Your task to perform on an android device: Toggle the flashlight Image 0: 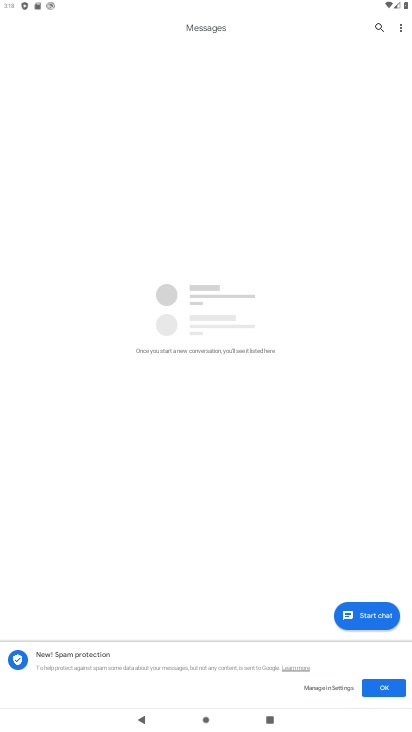
Step 0: press home button
Your task to perform on an android device: Toggle the flashlight Image 1: 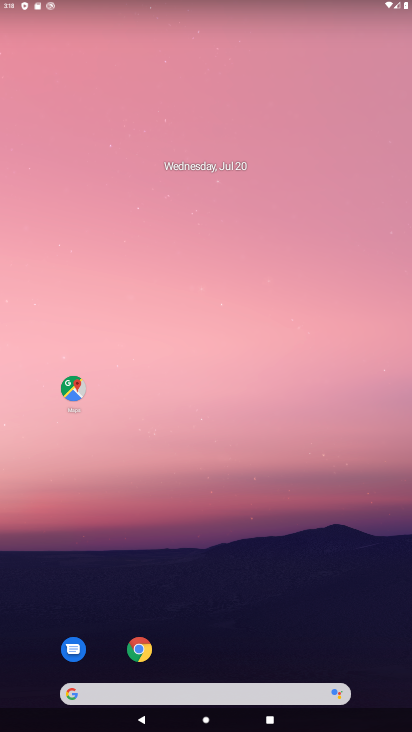
Step 1: click (198, 170)
Your task to perform on an android device: Toggle the flashlight Image 2: 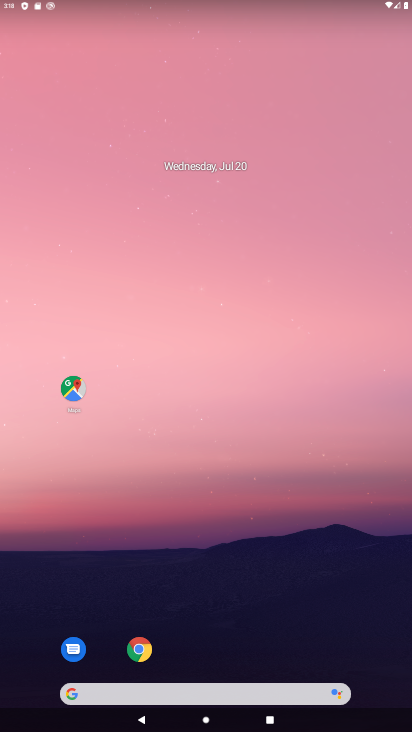
Step 2: task complete